Your task to perform on an android device: empty trash in the gmail app Image 0: 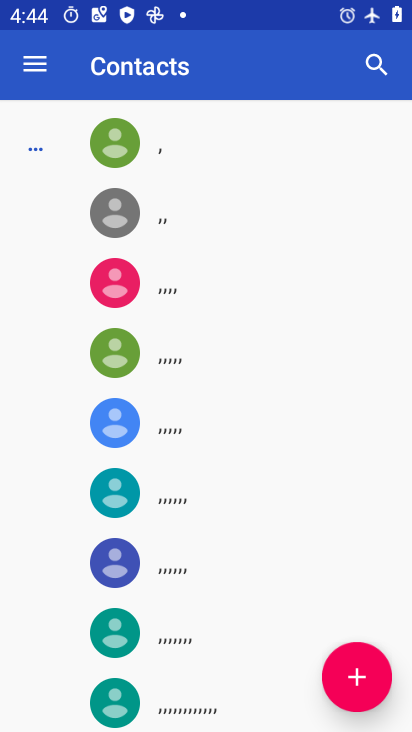
Step 0: press home button
Your task to perform on an android device: empty trash in the gmail app Image 1: 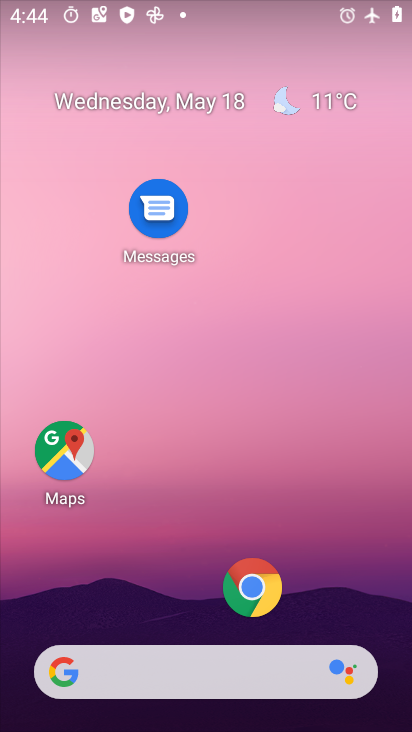
Step 1: drag from (286, 676) to (242, 263)
Your task to perform on an android device: empty trash in the gmail app Image 2: 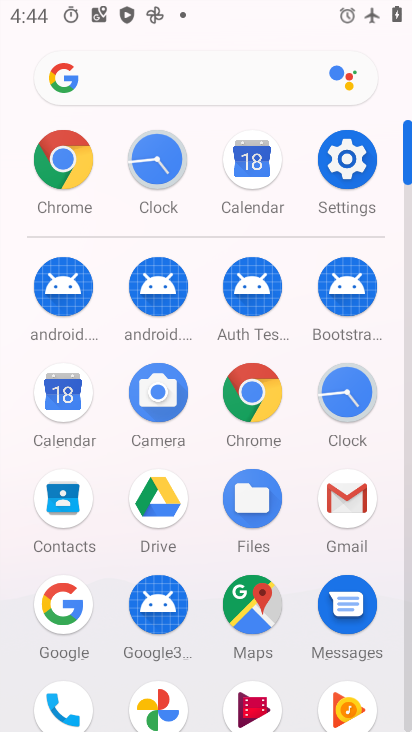
Step 2: click (352, 537)
Your task to perform on an android device: empty trash in the gmail app Image 3: 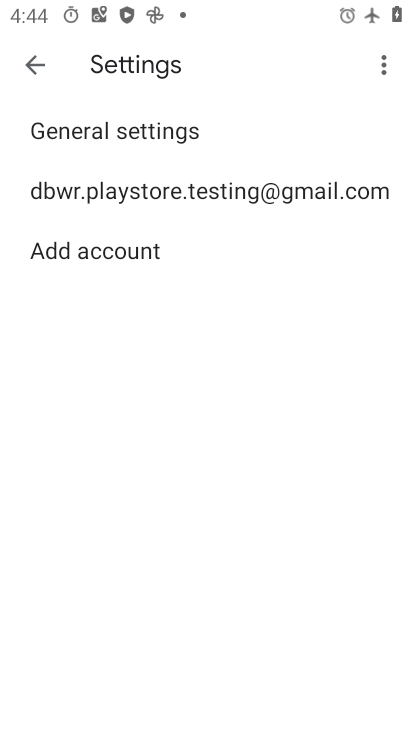
Step 3: click (44, 68)
Your task to perform on an android device: empty trash in the gmail app Image 4: 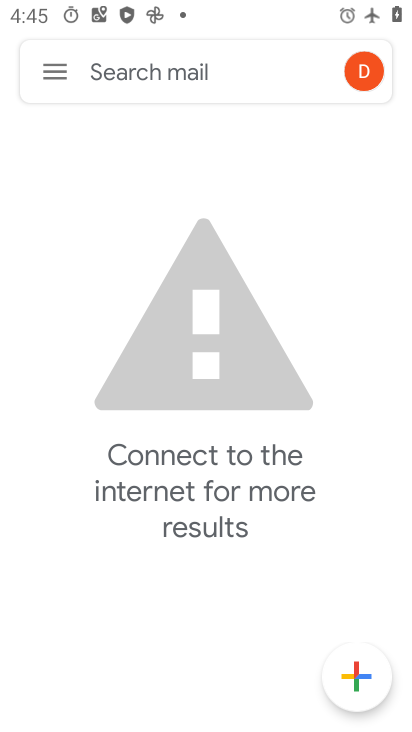
Step 4: task complete